Your task to perform on an android device: Go to CNN.com Image 0: 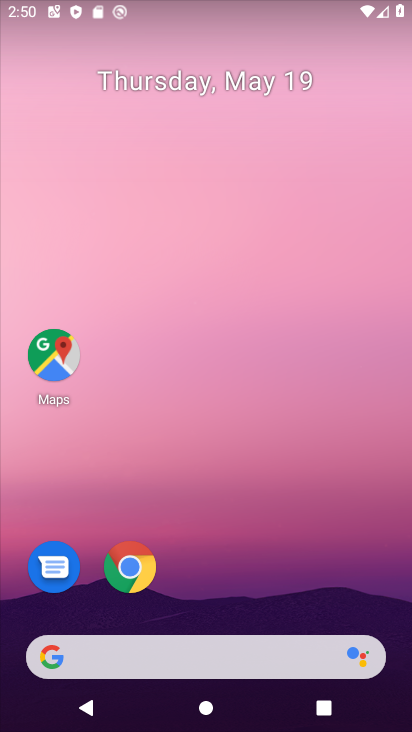
Step 0: click (128, 573)
Your task to perform on an android device: Go to CNN.com Image 1: 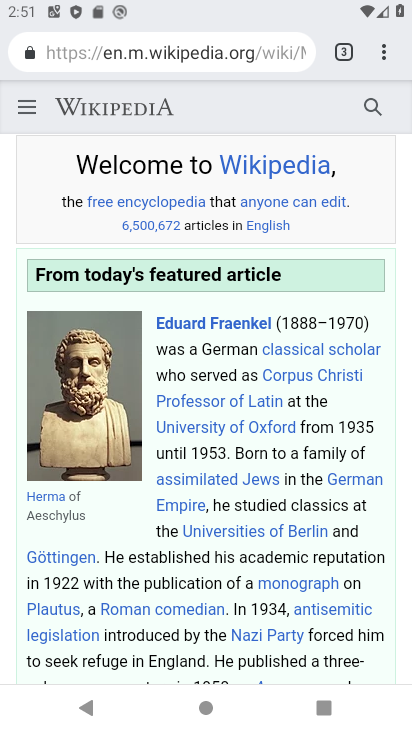
Step 1: click (383, 59)
Your task to perform on an android device: Go to CNN.com Image 2: 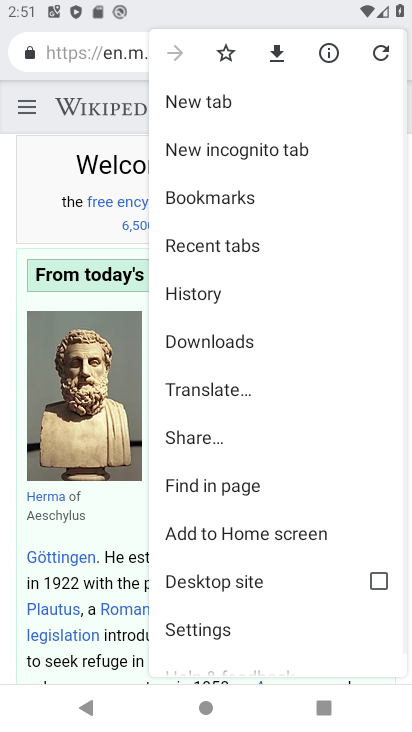
Step 2: click (217, 91)
Your task to perform on an android device: Go to CNN.com Image 3: 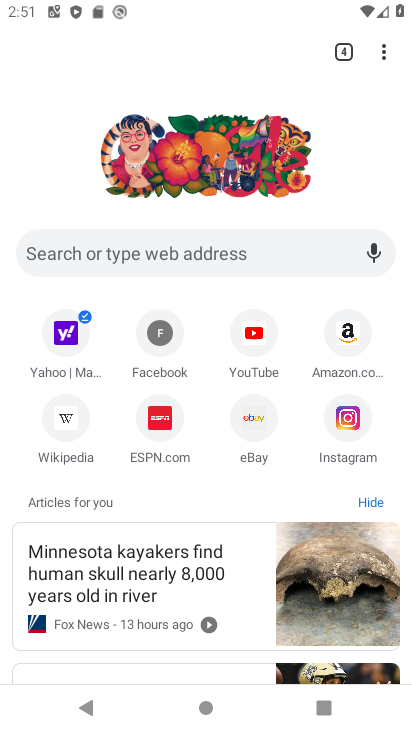
Step 3: click (211, 254)
Your task to perform on an android device: Go to CNN.com Image 4: 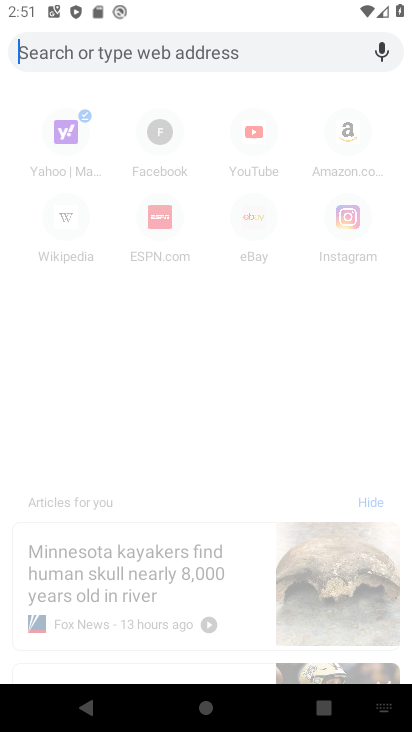
Step 4: type "CNN.com"
Your task to perform on an android device: Go to CNN.com Image 5: 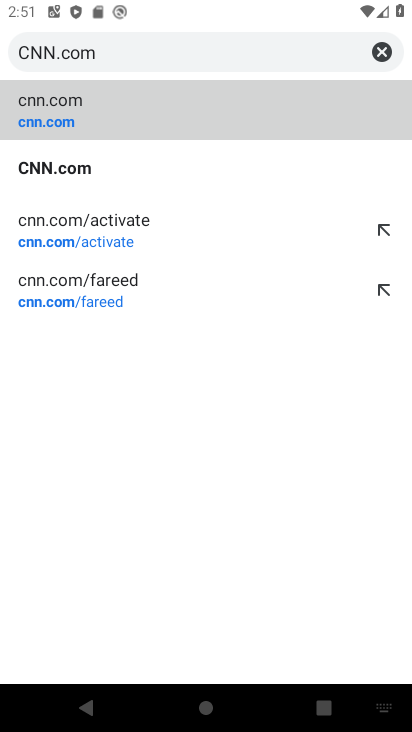
Step 5: click (144, 91)
Your task to perform on an android device: Go to CNN.com Image 6: 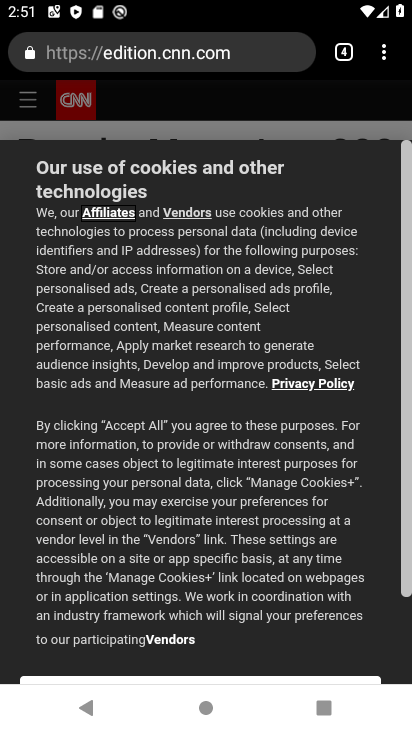
Step 6: task complete